Your task to perform on an android device: Is it going to rain this weekend? Image 0: 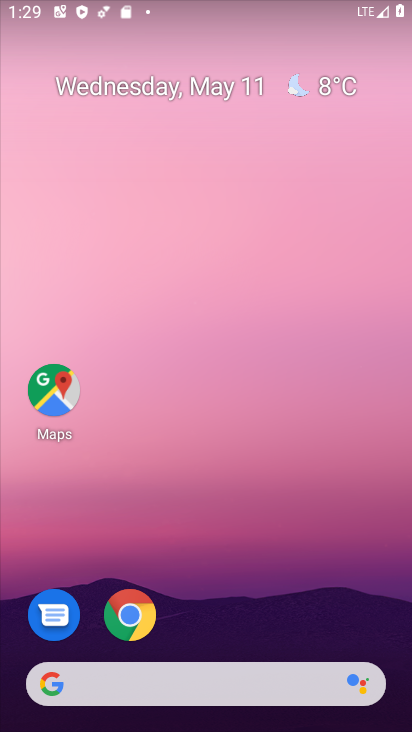
Step 0: click (346, 84)
Your task to perform on an android device: Is it going to rain this weekend? Image 1: 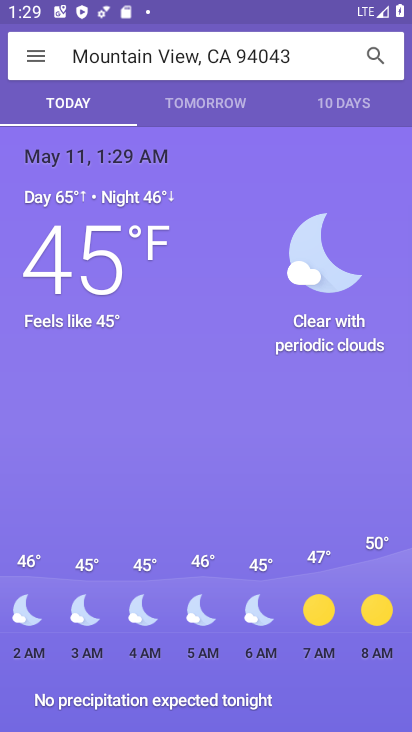
Step 1: click (337, 99)
Your task to perform on an android device: Is it going to rain this weekend? Image 2: 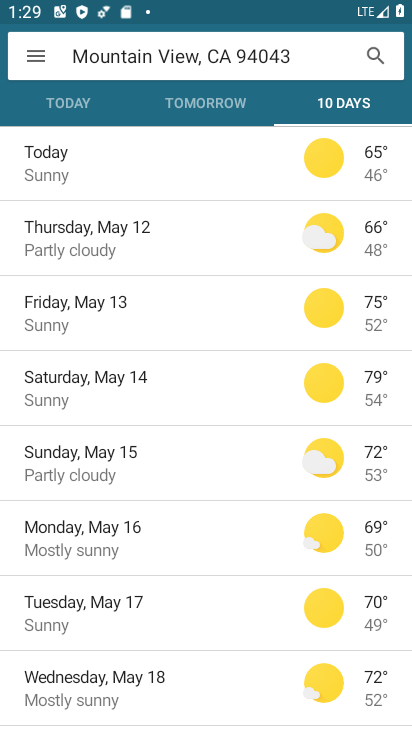
Step 2: task complete